Your task to perform on an android device: snooze an email in the gmail app Image 0: 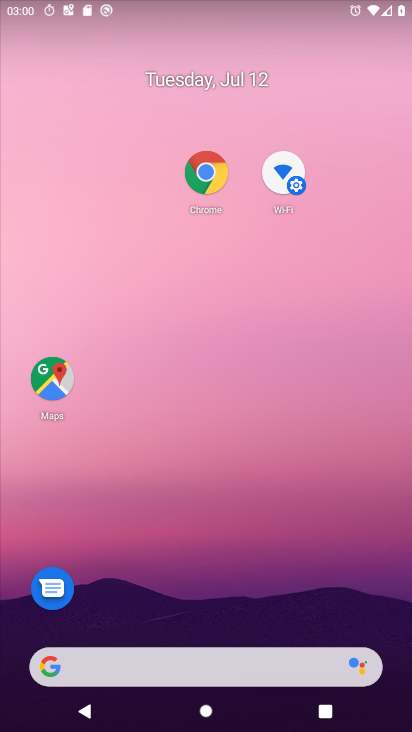
Step 0: drag from (167, 643) to (200, 2)
Your task to perform on an android device: snooze an email in the gmail app Image 1: 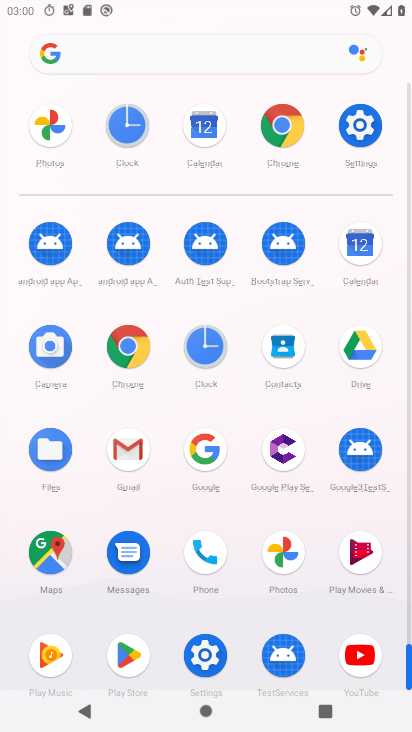
Step 1: click (121, 455)
Your task to perform on an android device: snooze an email in the gmail app Image 2: 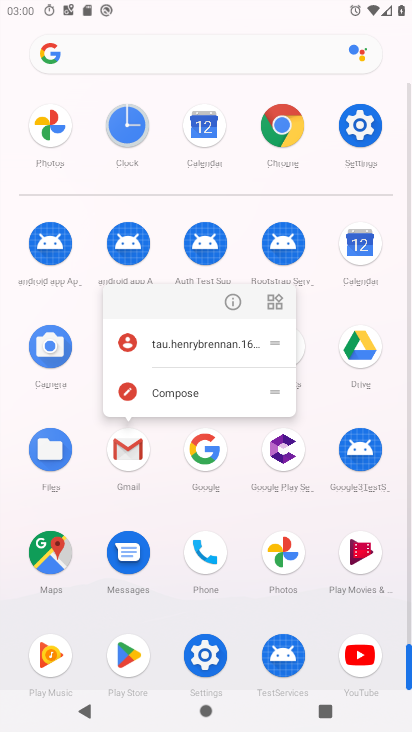
Step 2: click (223, 301)
Your task to perform on an android device: snooze an email in the gmail app Image 3: 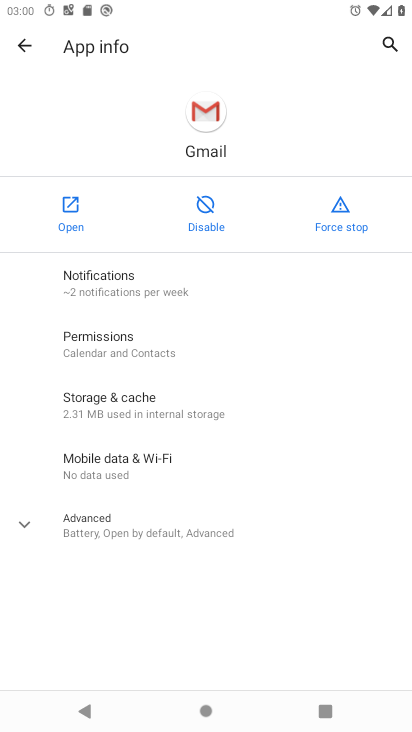
Step 3: click (69, 219)
Your task to perform on an android device: snooze an email in the gmail app Image 4: 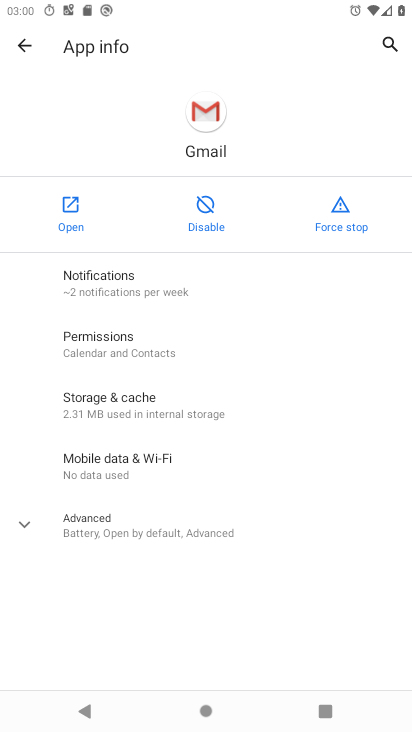
Step 4: click (69, 219)
Your task to perform on an android device: snooze an email in the gmail app Image 5: 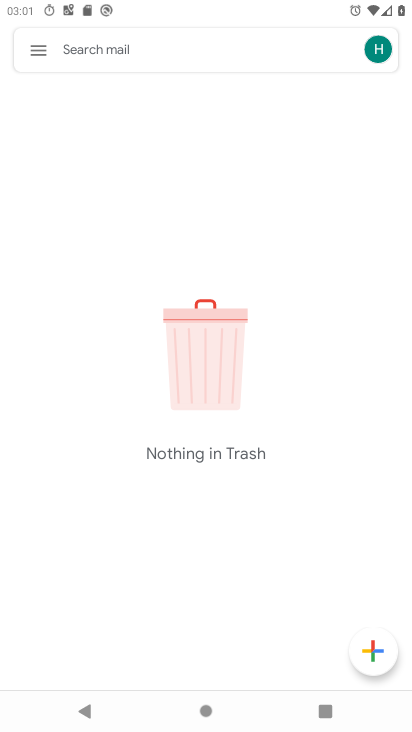
Step 5: click (30, 53)
Your task to perform on an android device: snooze an email in the gmail app Image 6: 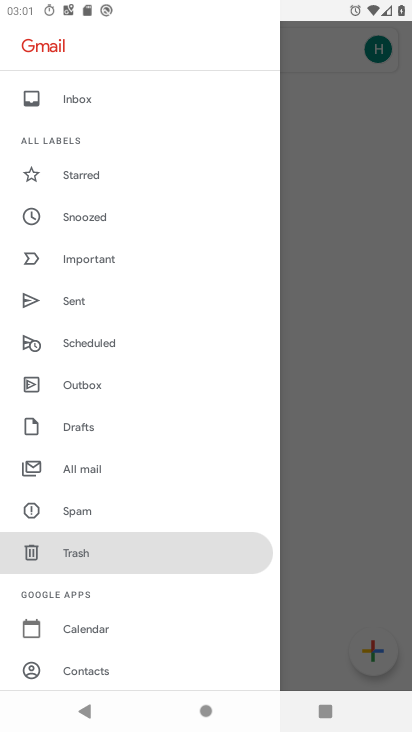
Step 6: click (343, 270)
Your task to perform on an android device: snooze an email in the gmail app Image 7: 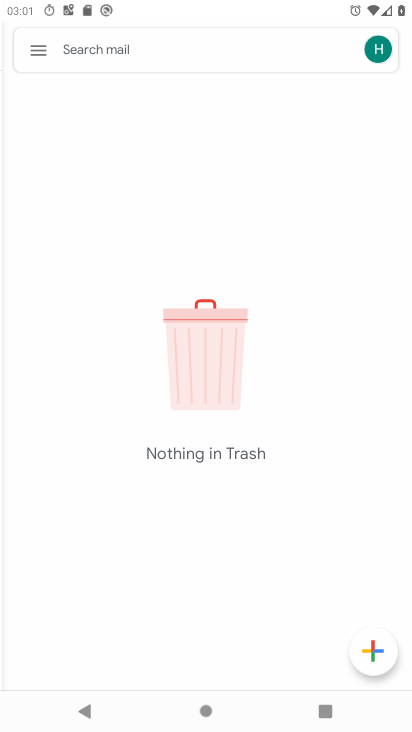
Step 7: task complete